Your task to perform on an android device: change the upload size in google photos Image 0: 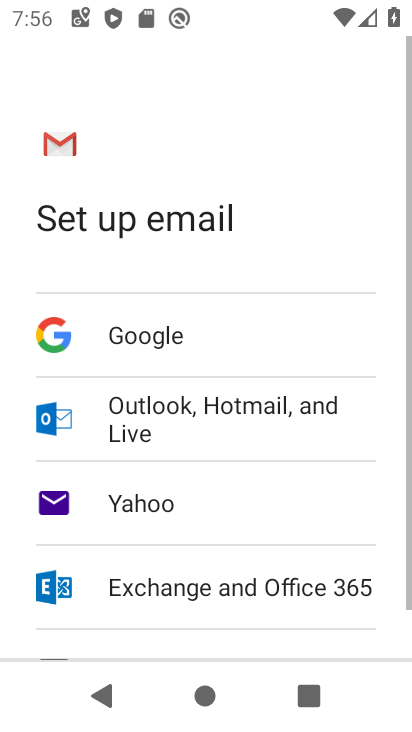
Step 0: press home button
Your task to perform on an android device: change the upload size in google photos Image 1: 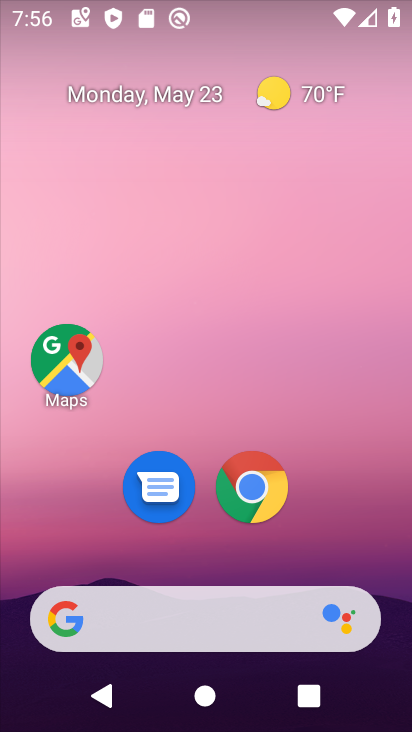
Step 1: drag from (201, 590) to (214, 177)
Your task to perform on an android device: change the upload size in google photos Image 2: 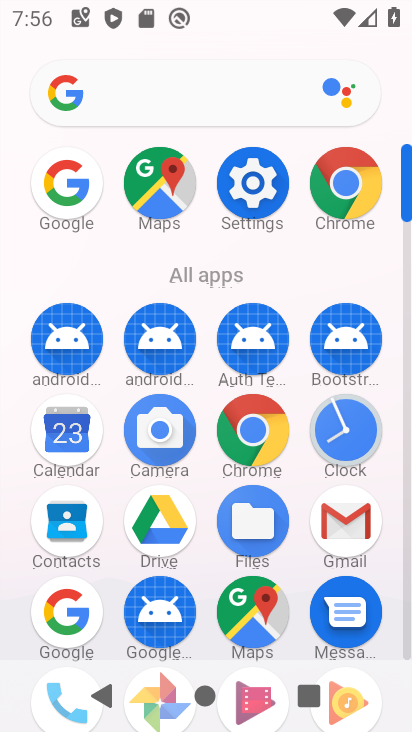
Step 2: drag from (202, 629) to (194, 220)
Your task to perform on an android device: change the upload size in google photos Image 3: 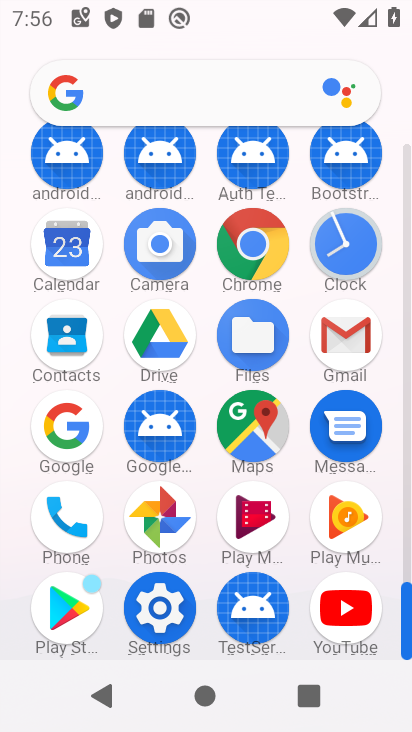
Step 3: click (155, 531)
Your task to perform on an android device: change the upload size in google photos Image 4: 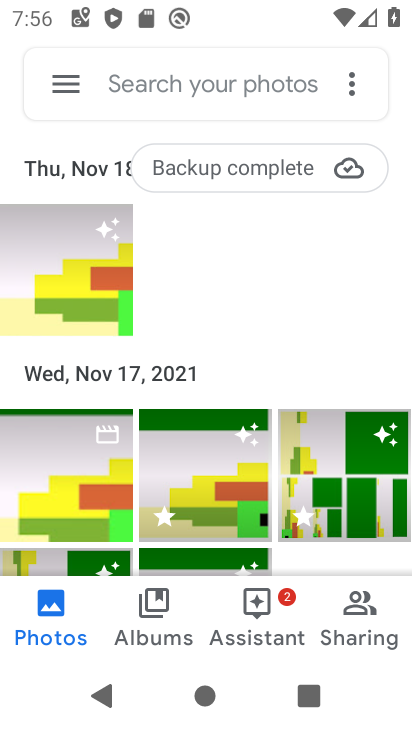
Step 4: click (351, 85)
Your task to perform on an android device: change the upload size in google photos Image 5: 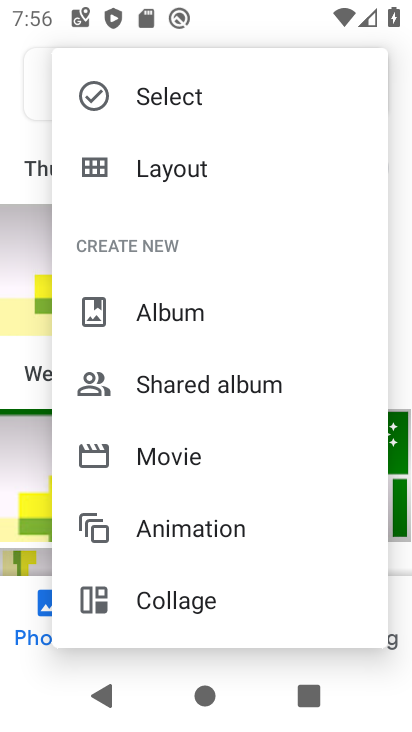
Step 5: click (12, 195)
Your task to perform on an android device: change the upload size in google photos Image 6: 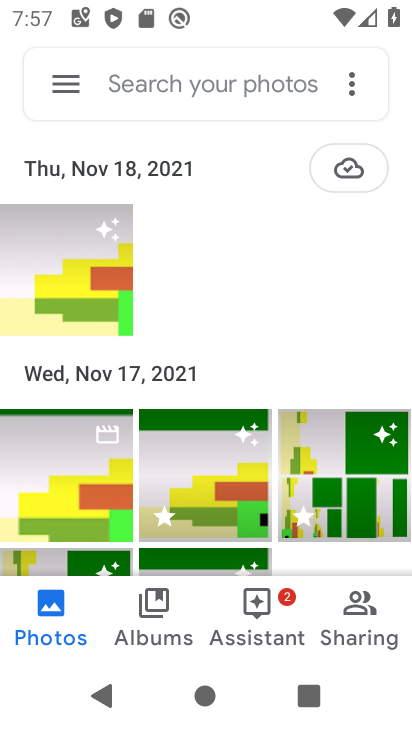
Step 6: click (62, 90)
Your task to perform on an android device: change the upload size in google photos Image 7: 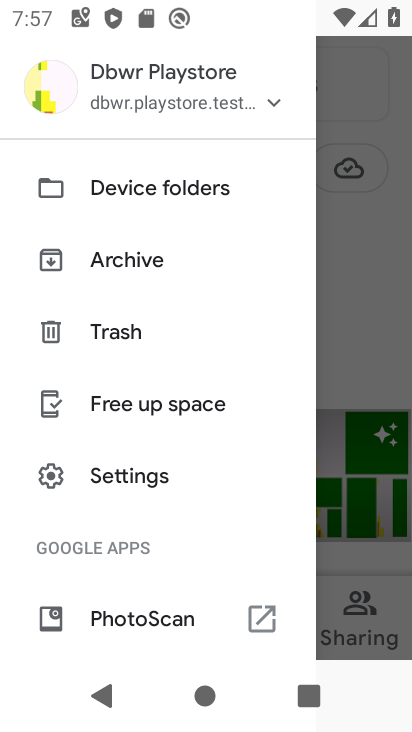
Step 7: click (134, 477)
Your task to perform on an android device: change the upload size in google photos Image 8: 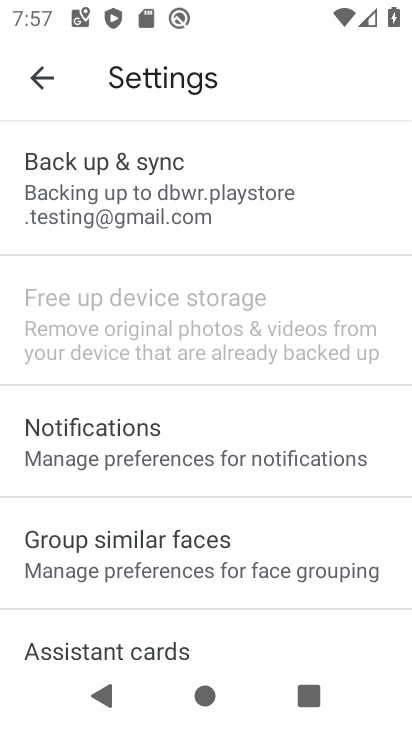
Step 8: click (159, 178)
Your task to perform on an android device: change the upload size in google photos Image 9: 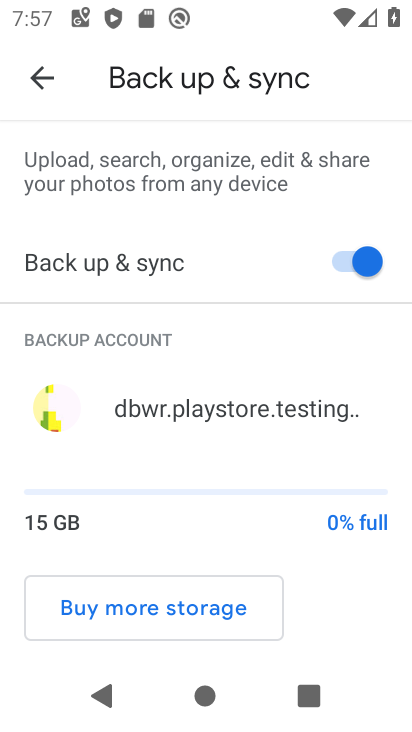
Step 9: drag from (150, 535) to (161, 158)
Your task to perform on an android device: change the upload size in google photos Image 10: 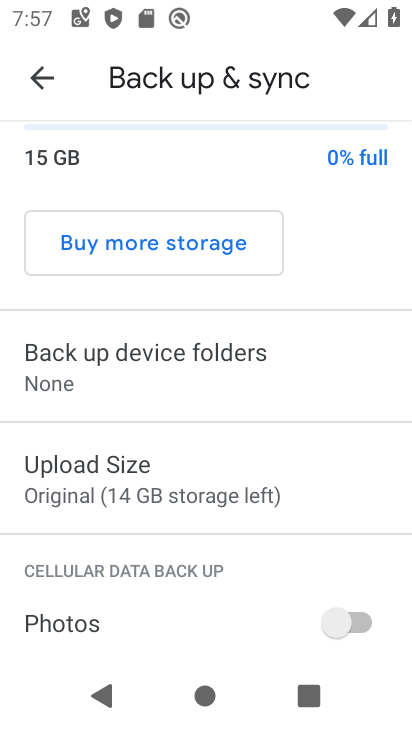
Step 10: click (99, 479)
Your task to perform on an android device: change the upload size in google photos Image 11: 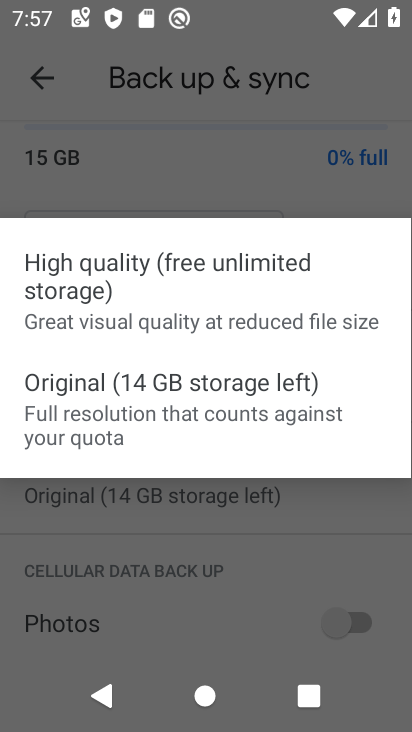
Step 11: click (74, 273)
Your task to perform on an android device: change the upload size in google photos Image 12: 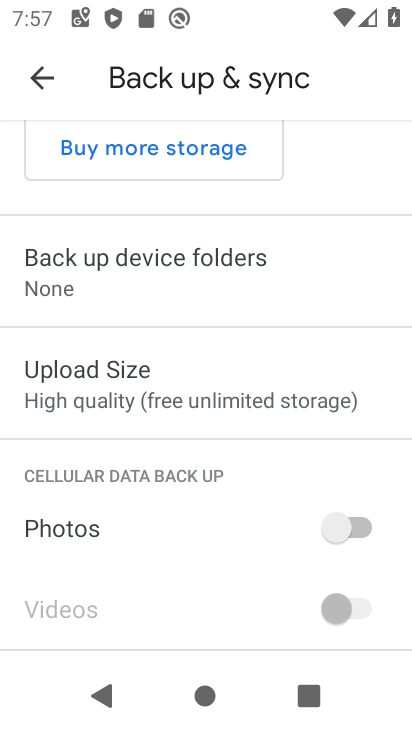
Step 12: task complete